Your task to perform on an android device: open a bookmark in the chrome app Image 0: 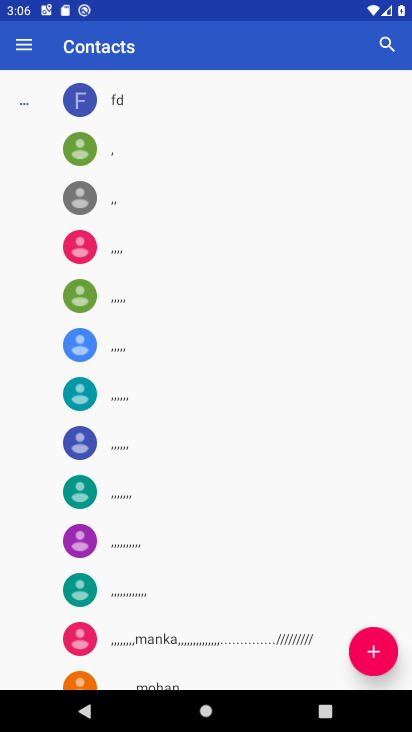
Step 0: drag from (186, 612) to (244, 158)
Your task to perform on an android device: open a bookmark in the chrome app Image 1: 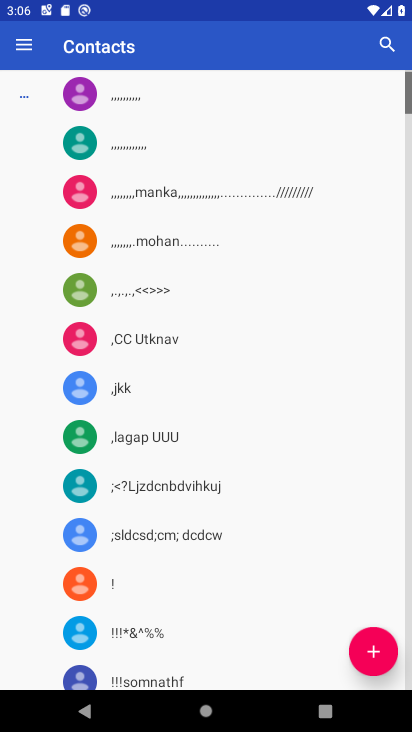
Step 1: press home button
Your task to perform on an android device: open a bookmark in the chrome app Image 2: 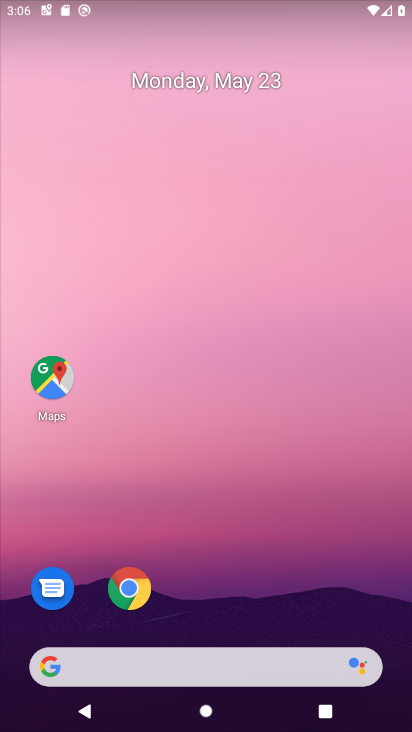
Step 2: drag from (194, 625) to (196, 82)
Your task to perform on an android device: open a bookmark in the chrome app Image 3: 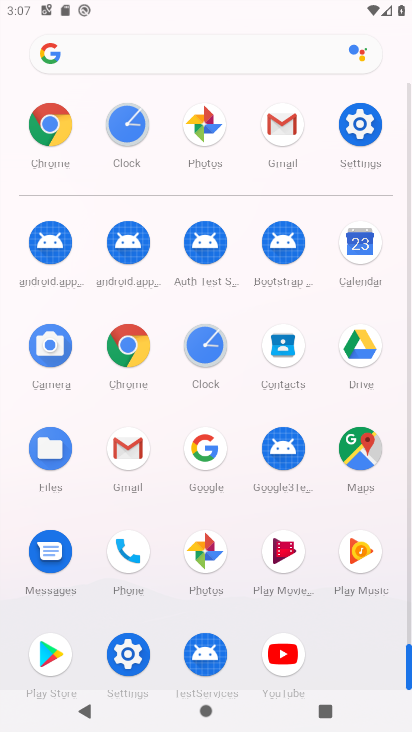
Step 3: click (49, 120)
Your task to perform on an android device: open a bookmark in the chrome app Image 4: 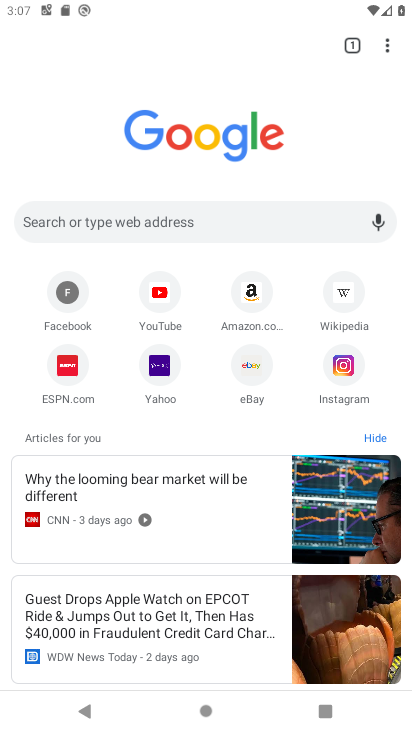
Step 4: click (381, 48)
Your task to perform on an android device: open a bookmark in the chrome app Image 5: 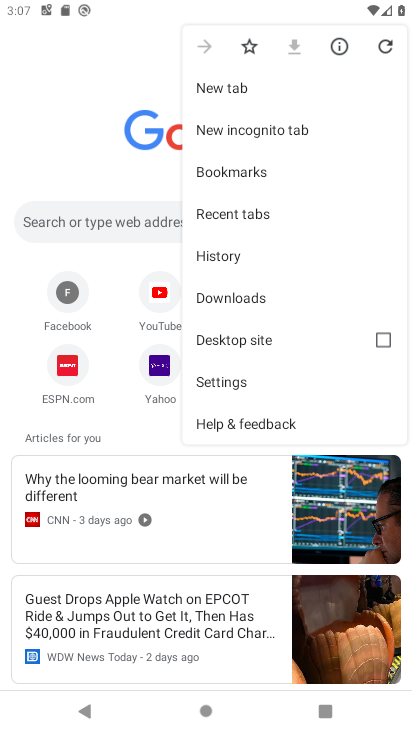
Step 5: click (244, 163)
Your task to perform on an android device: open a bookmark in the chrome app Image 6: 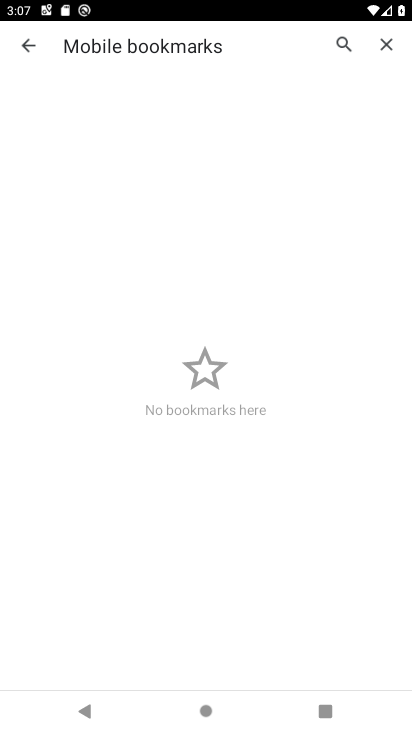
Step 6: drag from (186, 518) to (259, 241)
Your task to perform on an android device: open a bookmark in the chrome app Image 7: 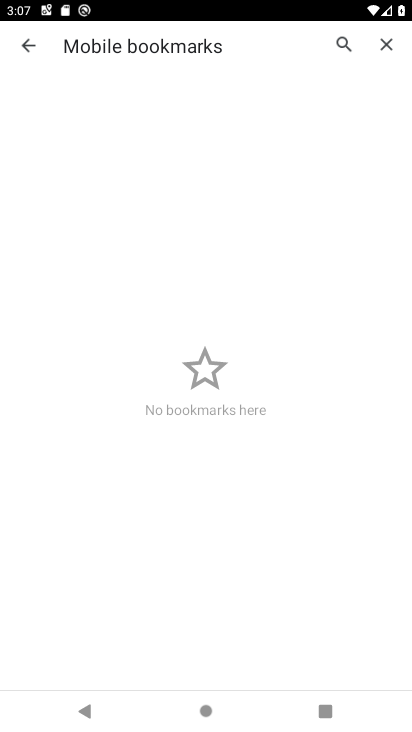
Step 7: drag from (136, 252) to (369, 481)
Your task to perform on an android device: open a bookmark in the chrome app Image 8: 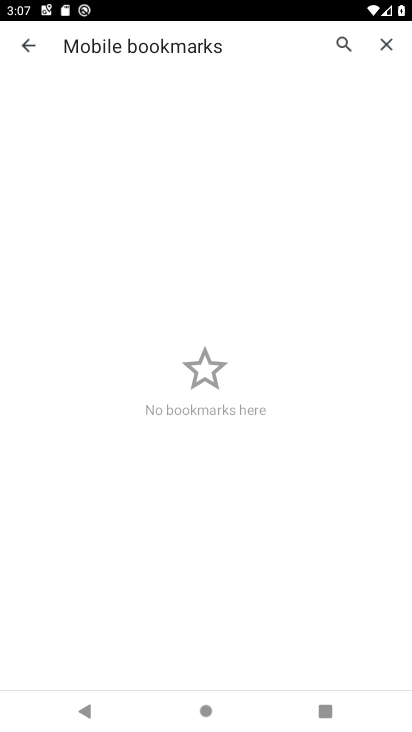
Step 8: click (362, 404)
Your task to perform on an android device: open a bookmark in the chrome app Image 9: 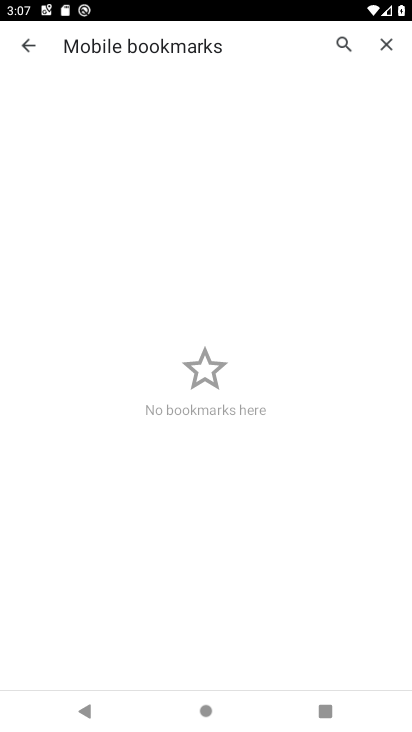
Step 9: task complete